Your task to perform on an android device: turn off data saver in the chrome app Image 0: 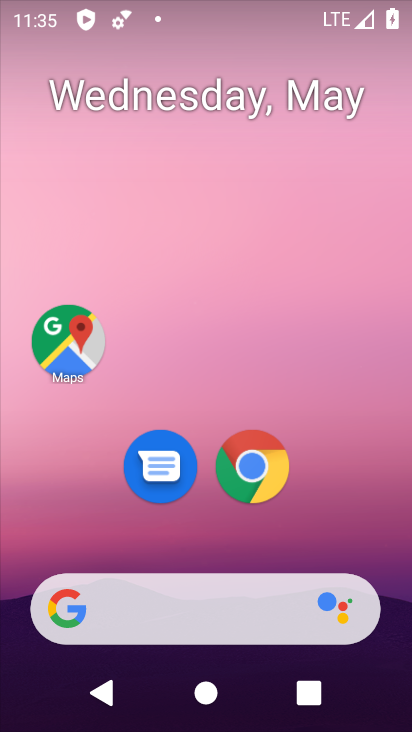
Step 0: click (238, 437)
Your task to perform on an android device: turn off data saver in the chrome app Image 1: 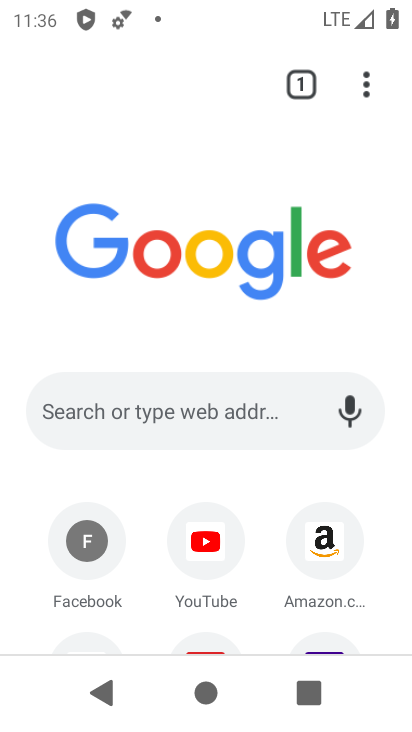
Step 1: click (374, 90)
Your task to perform on an android device: turn off data saver in the chrome app Image 2: 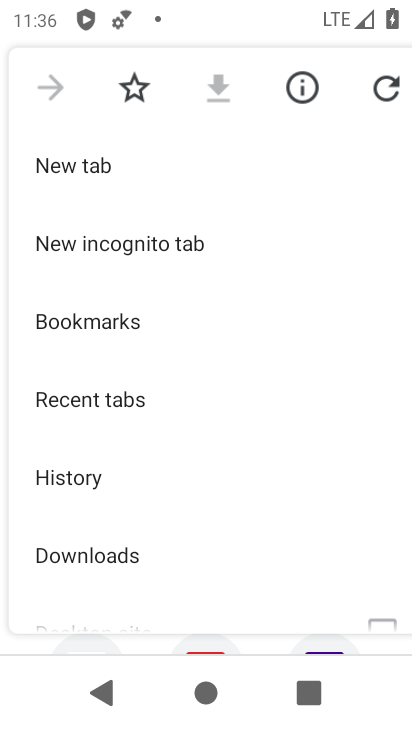
Step 2: drag from (35, 576) to (111, 259)
Your task to perform on an android device: turn off data saver in the chrome app Image 3: 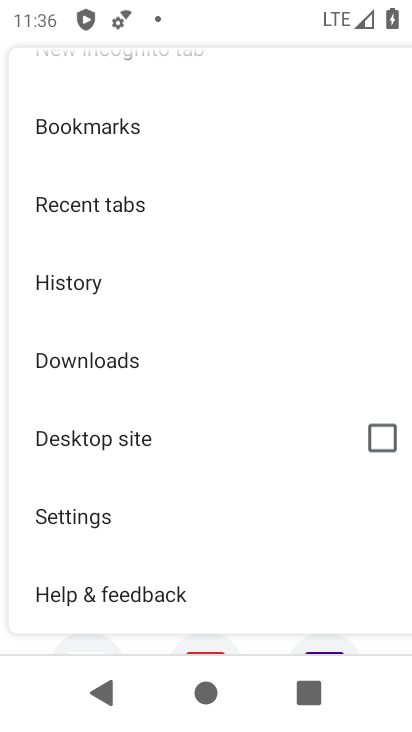
Step 3: drag from (111, 509) to (130, 266)
Your task to perform on an android device: turn off data saver in the chrome app Image 4: 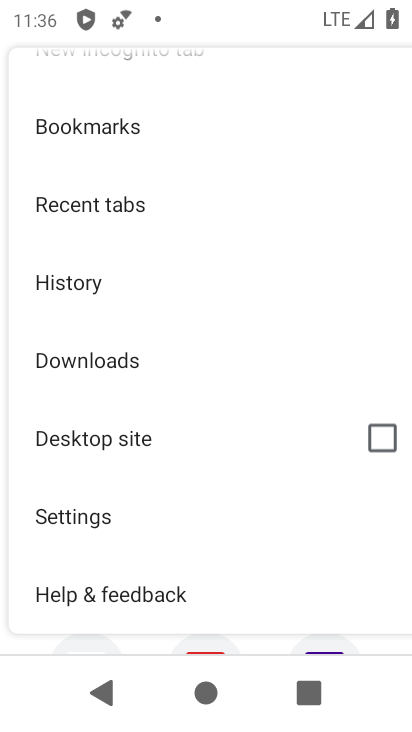
Step 4: click (90, 521)
Your task to perform on an android device: turn off data saver in the chrome app Image 5: 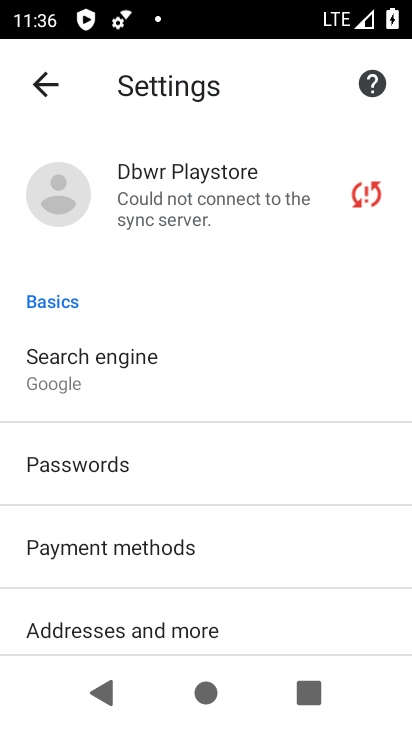
Step 5: drag from (141, 569) to (182, 349)
Your task to perform on an android device: turn off data saver in the chrome app Image 6: 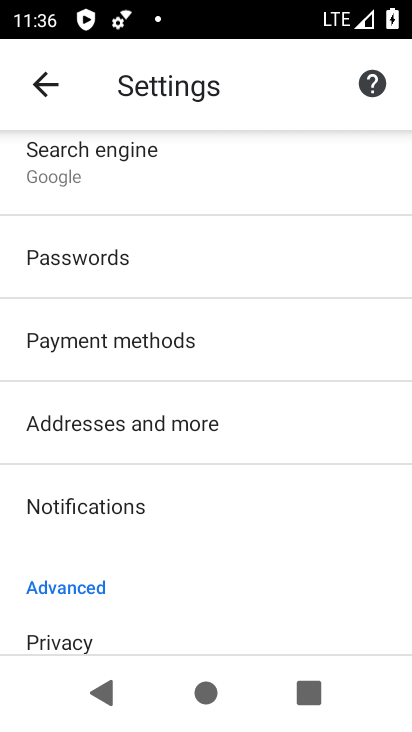
Step 6: drag from (120, 617) to (167, 240)
Your task to perform on an android device: turn off data saver in the chrome app Image 7: 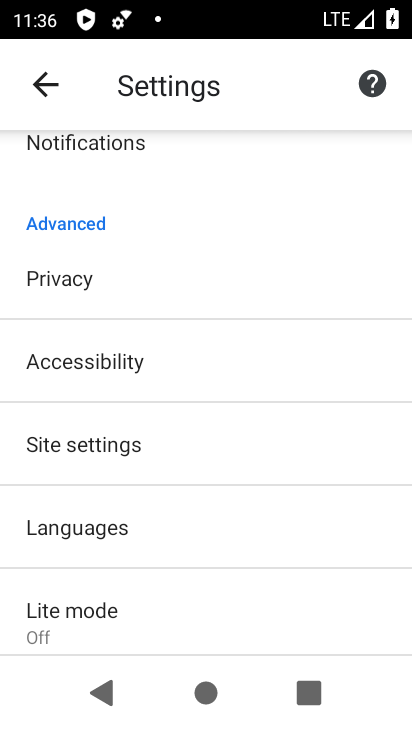
Step 7: click (83, 631)
Your task to perform on an android device: turn off data saver in the chrome app Image 8: 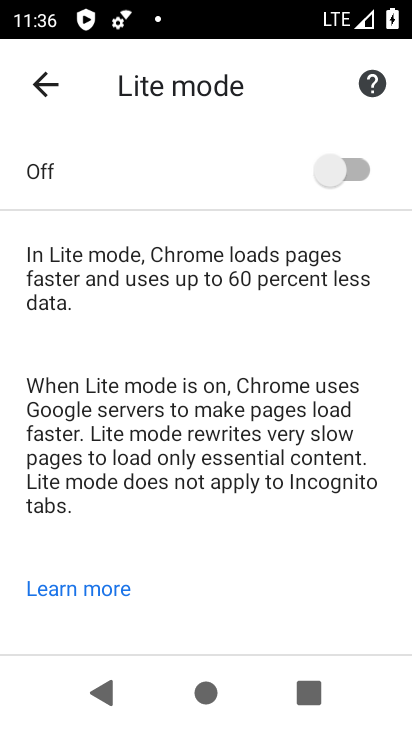
Step 8: task complete